Your task to perform on an android device: Find coffee shops on Maps Image 0: 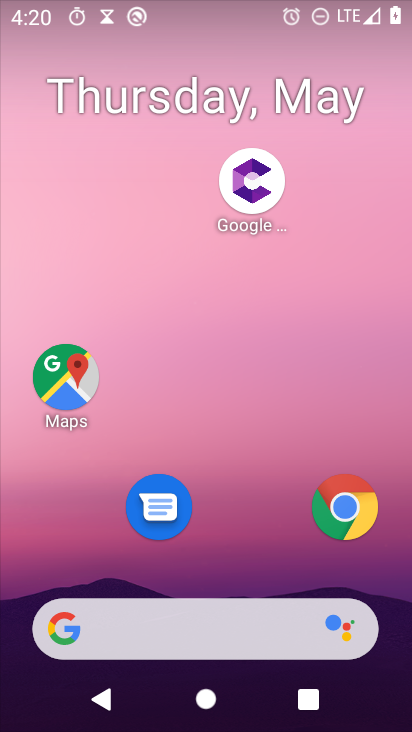
Step 0: click (64, 380)
Your task to perform on an android device: Find coffee shops on Maps Image 1: 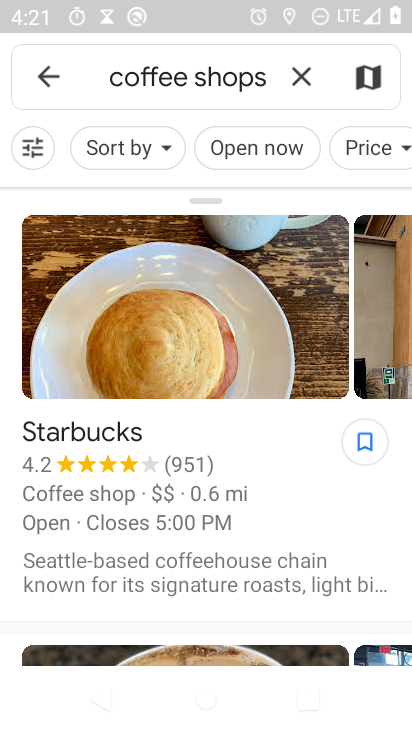
Step 1: task complete